Your task to perform on an android device: Toggle the flashlight Image 0: 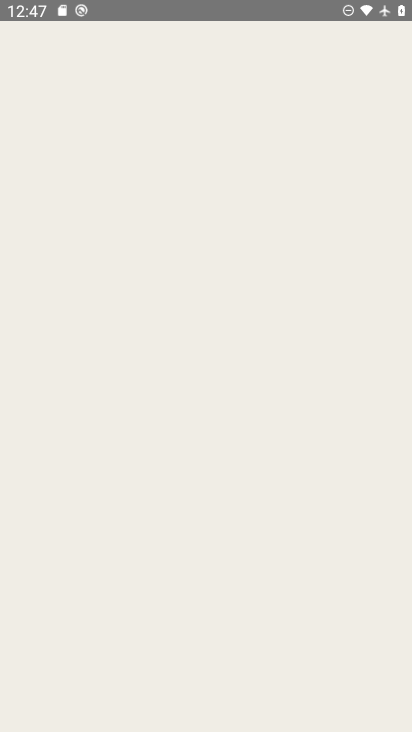
Step 0: drag from (43, 268) to (382, 479)
Your task to perform on an android device: Toggle the flashlight Image 1: 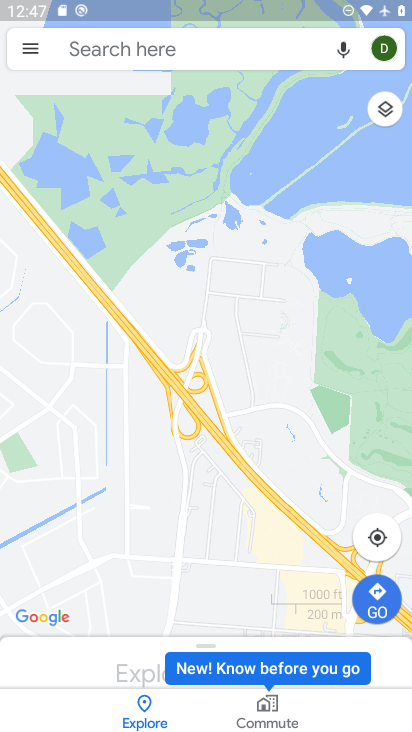
Step 1: task complete